Your task to perform on an android device: Clear the cart on ebay.com. Add acer nitro to the cart on ebay.com, then select checkout. Image 0: 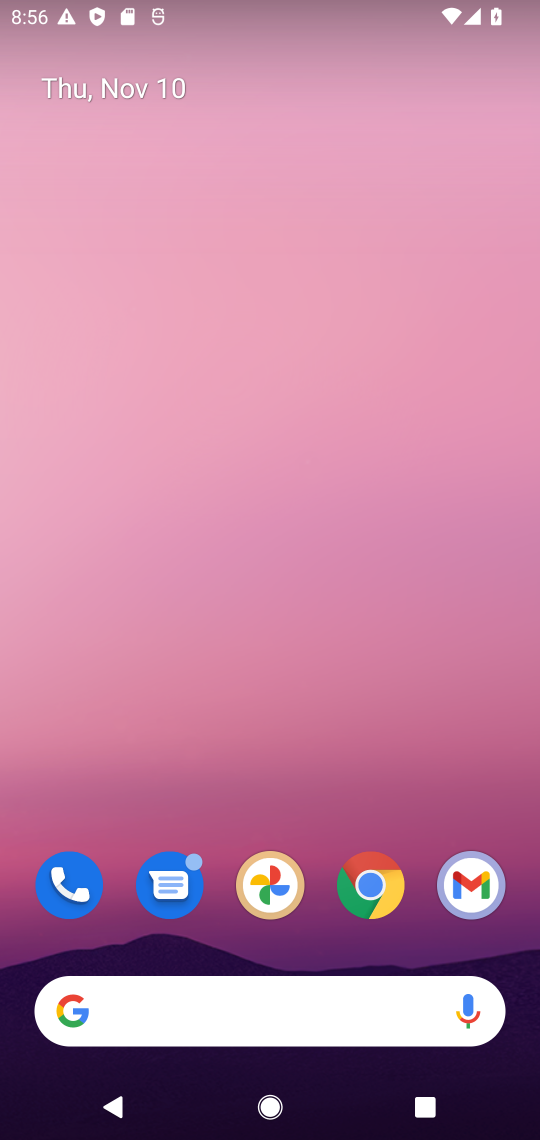
Step 0: click (368, 880)
Your task to perform on an android device: Clear the cart on ebay.com. Add acer nitro to the cart on ebay.com, then select checkout. Image 1: 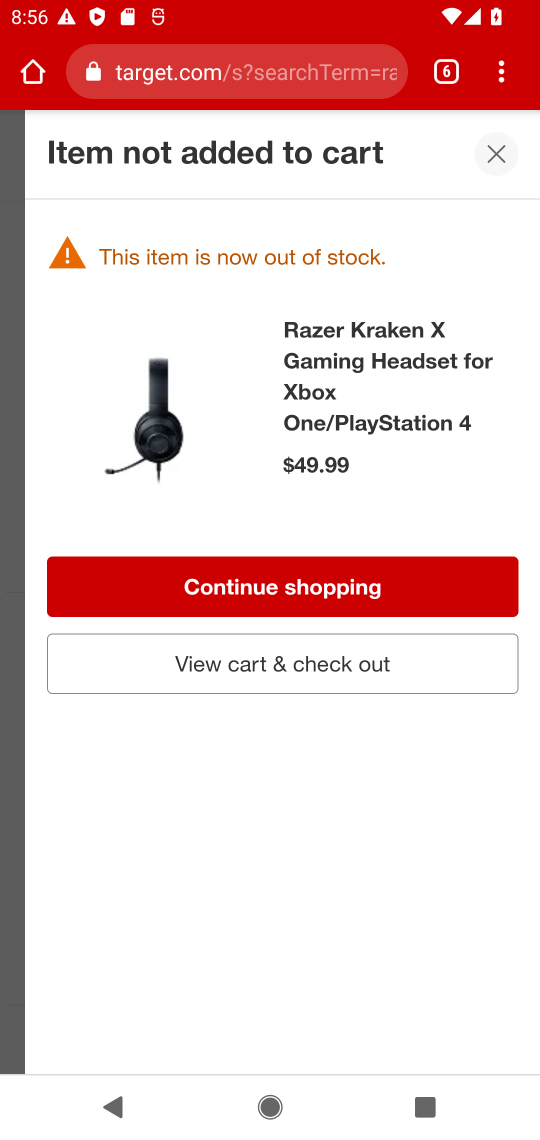
Step 1: click (448, 76)
Your task to perform on an android device: Clear the cart on ebay.com. Add acer nitro to the cart on ebay.com, then select checkout. Image 2: 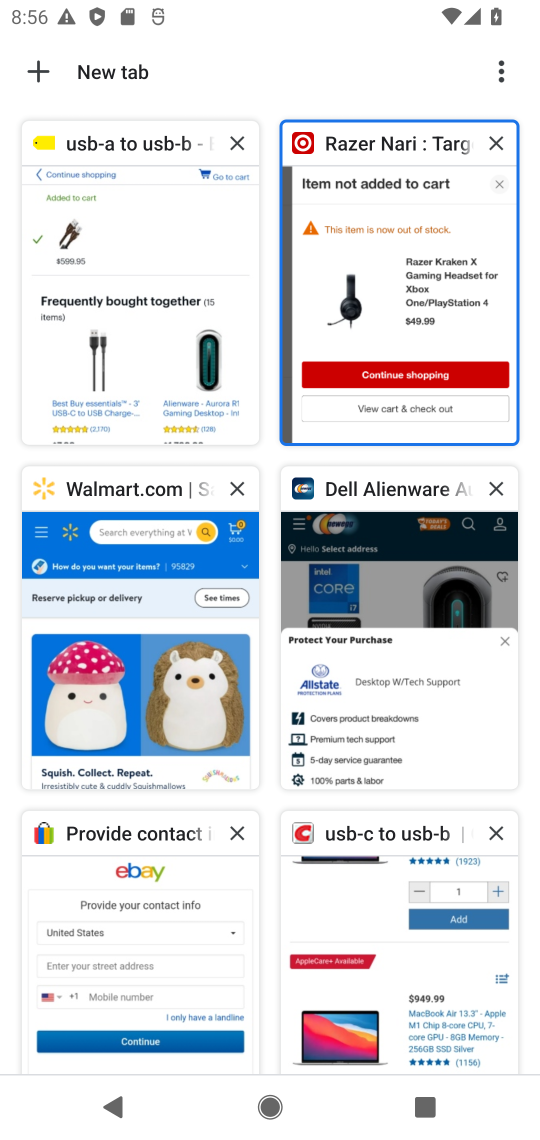
Step 2: click (144, 903)
Your task to perform on an android device: Clear the cart on ebay.com. Add acer nitro to the cart on ebay.com, then select checkout. Image 3: 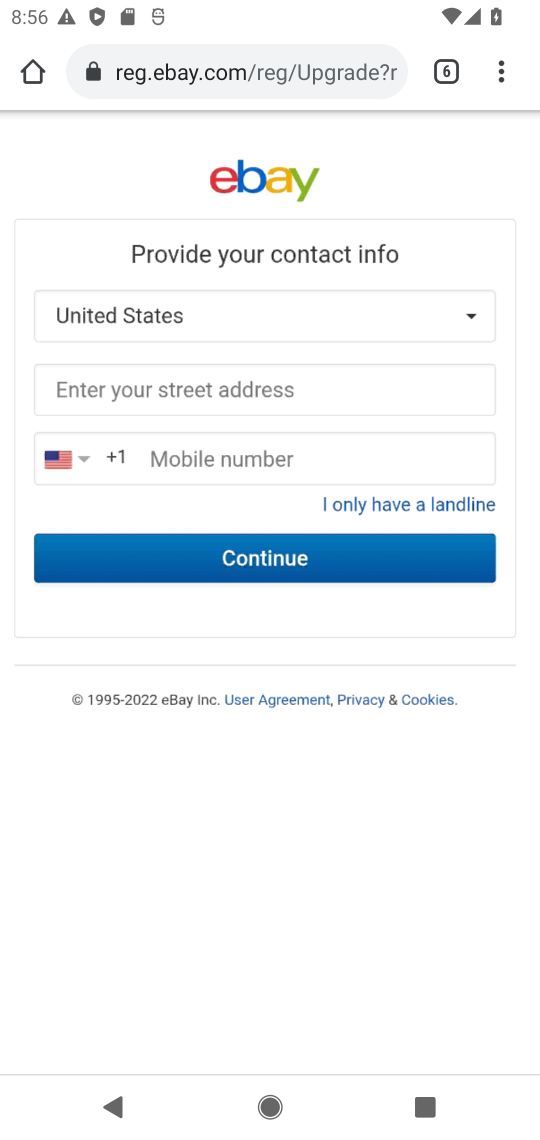
Step 3: press back button
Your task to perform on an android device: Clear the cart on ebay.com. Add acer nitro to the cart on ebay.com, then select checkout. Image 4: 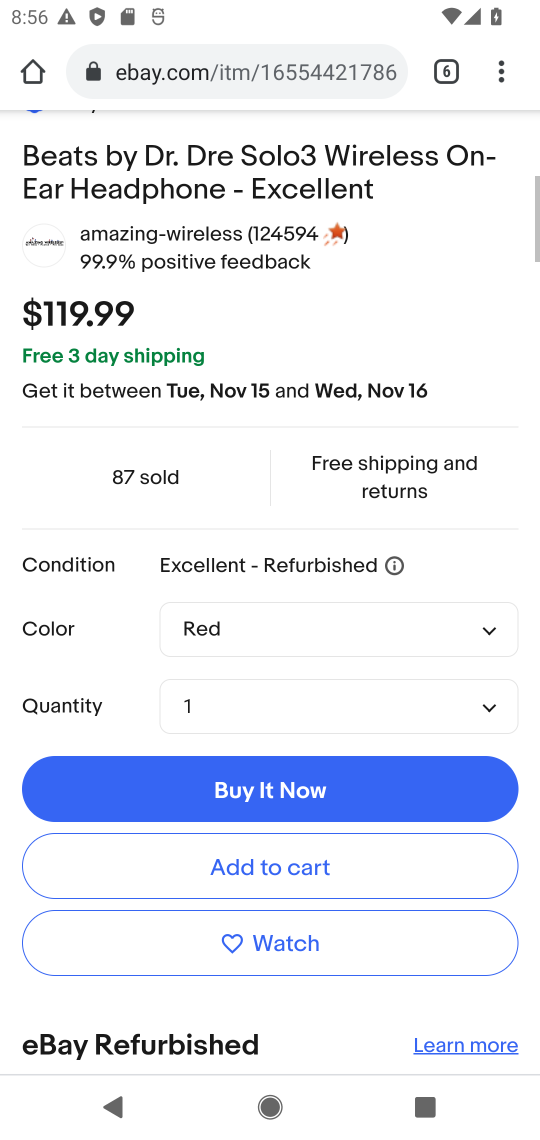
Step 4: drag from (357, 190) to (367, 365)
Your task to perform on an android device: Clear the cart on ebay.com. Add acer nitro to the cart on ebay.com, then select checkout. Image 5: 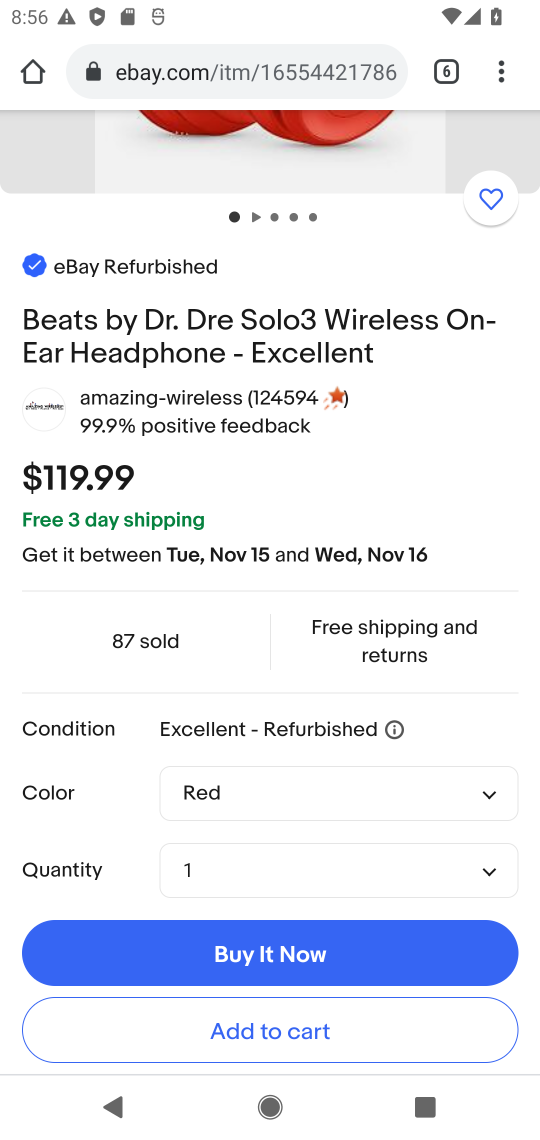
Step 5: drag from (324, 376) to (265, 959)
Your task to perform on an android device: Clear the cart on ebay.com. Add acer nitro to the cart on ebay.com, then select checkout. Image 6: 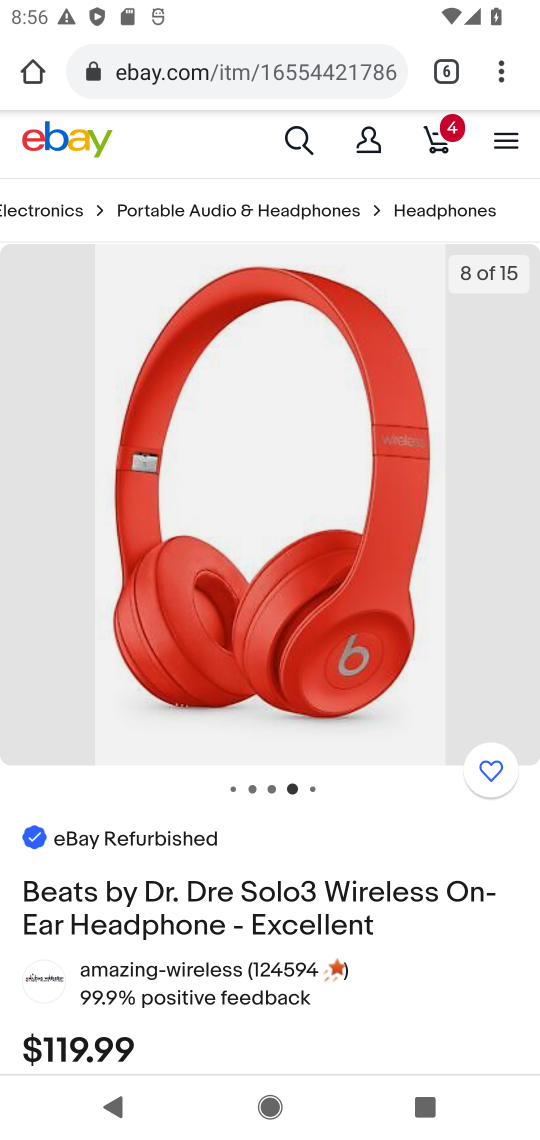
Step 6: click (295, 145)
Your task to perform on an android device: Clear the cart on ebay.com. Add acer nitro to the cart on ebay.com, then select checkout. Image 7: 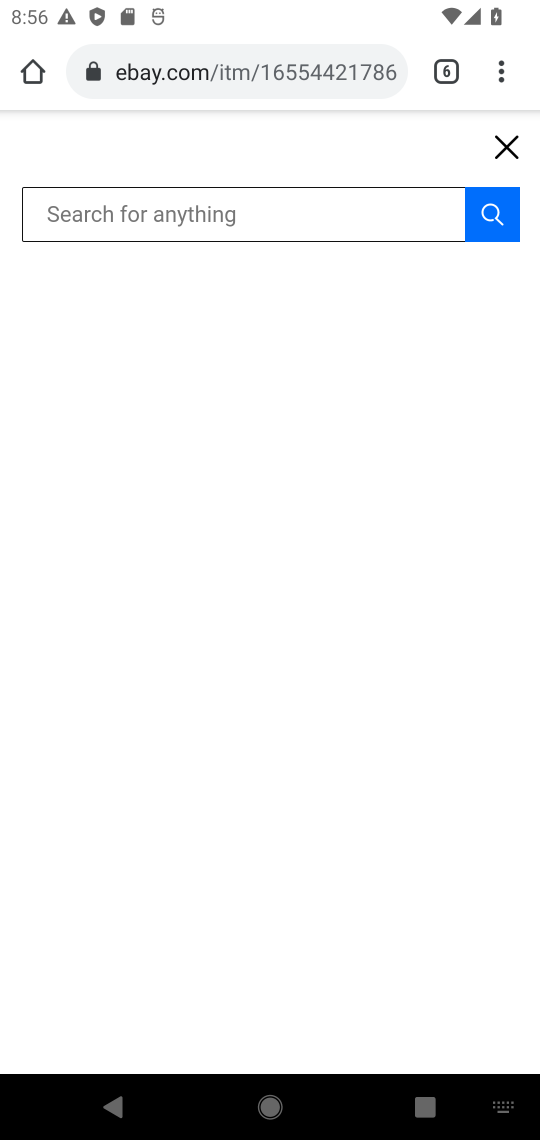
Step 7: type "acer nitro"
Your task to perform on an android device: Clear the cart on ebay.com. Add acer nitro to the cart on ebay.com, then select checkout. Image 8: 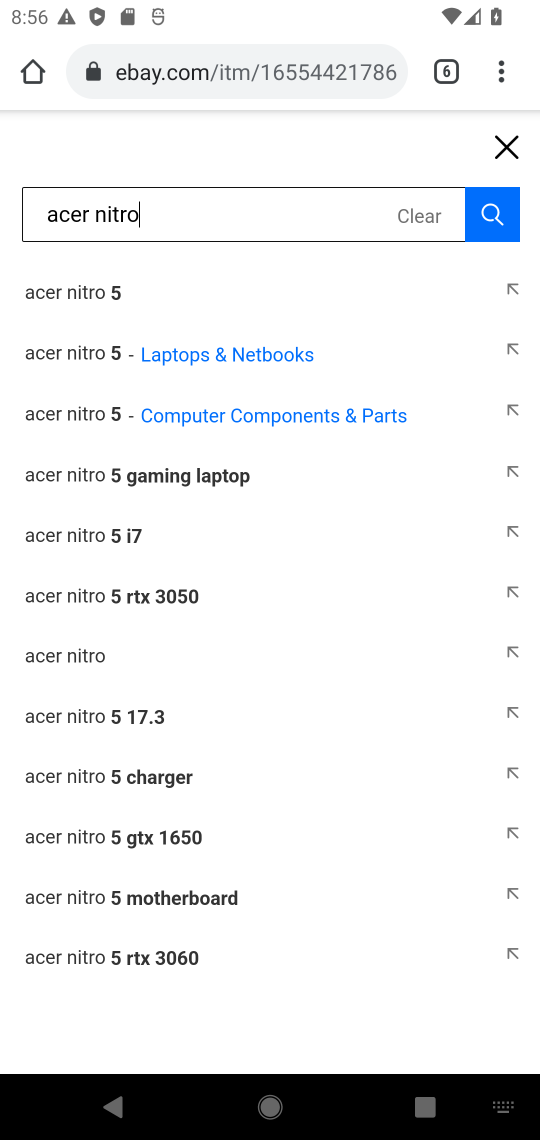
Step 8: click (92, 350)
Your task to perform on an android device: Clear the cart on ebay.com. Add acer nitro to the cart on ebay.com, then select checkout. Image 9: 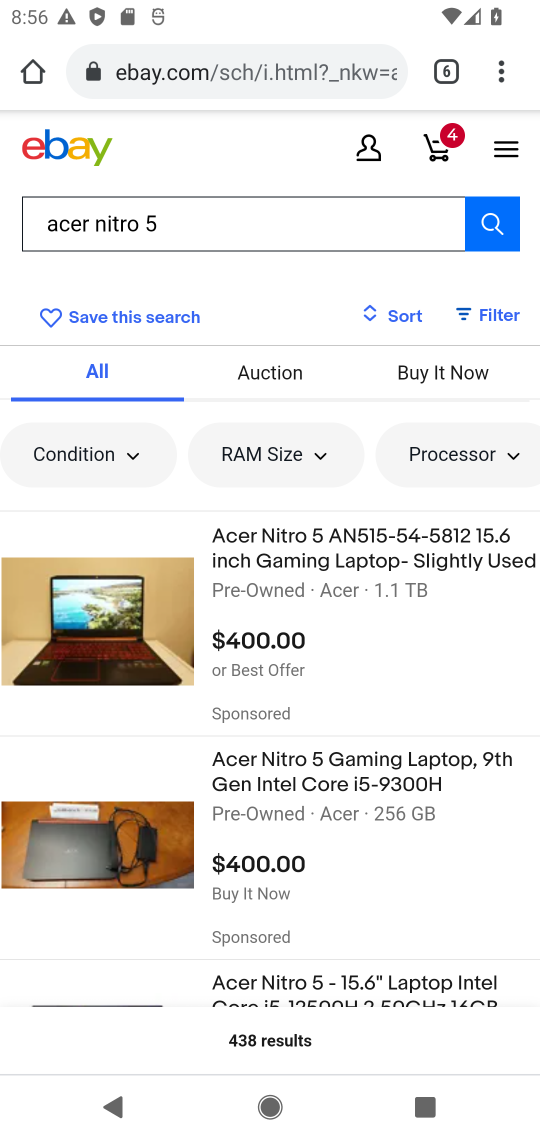
Step 9: click (322, 562)
Your task to perform on an android device: Clear the cart on ebay.com. Add acer nitro to the cart on ebay.com, then select checkout. Image 10: 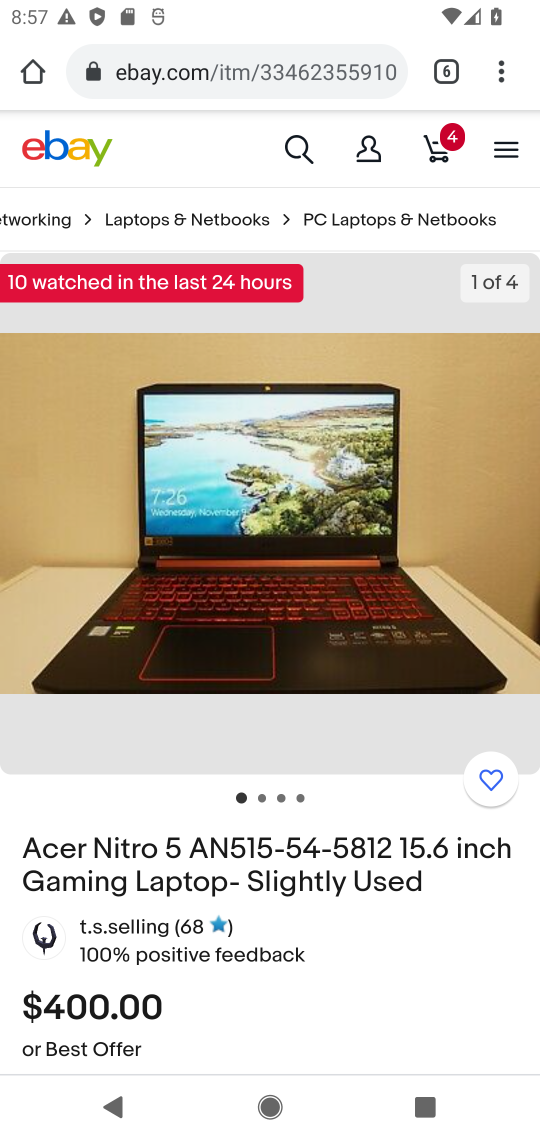
Step 10: drag from (376, 936) to (448, 688)
Your task to perform on an android device: Clear the cart on ebay.com. Add acer nitro to the cart on ebay.com, then select checkout. Image 11: 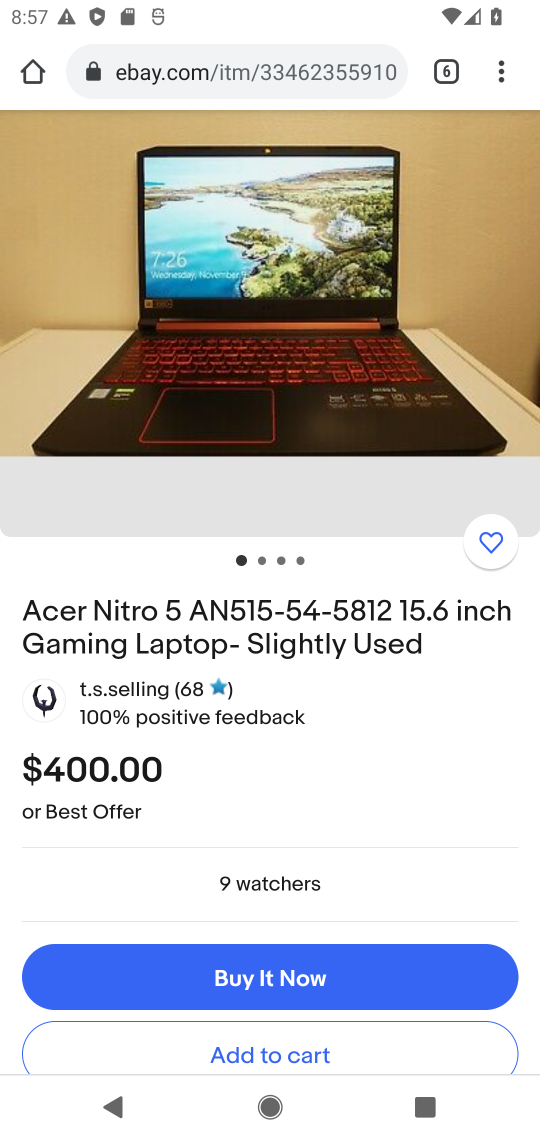
Step 11: click (319, 1051)
Your task to perform on an android device: Clear the cart on ebay.com. Add acer nitro to the cart on ebay.com, then select checkout. Image 12: 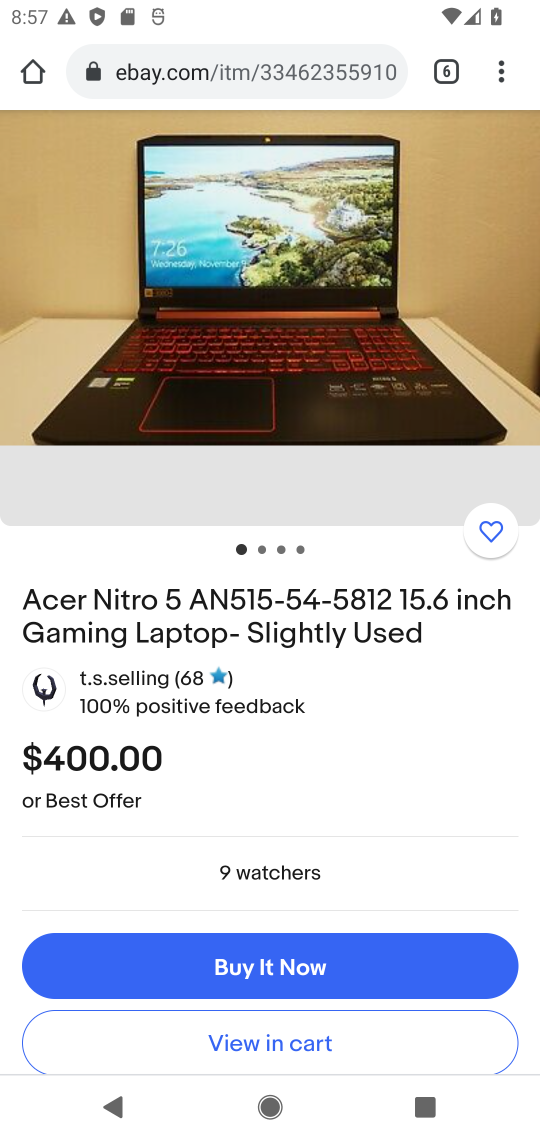
Step 12: drag from (443, 666) to (392, 1000)
Your task to perform on an android device: Clear the cart on ebay.com. Add acer nitro to the cart on ebay.com, then select checkout. Image 13: 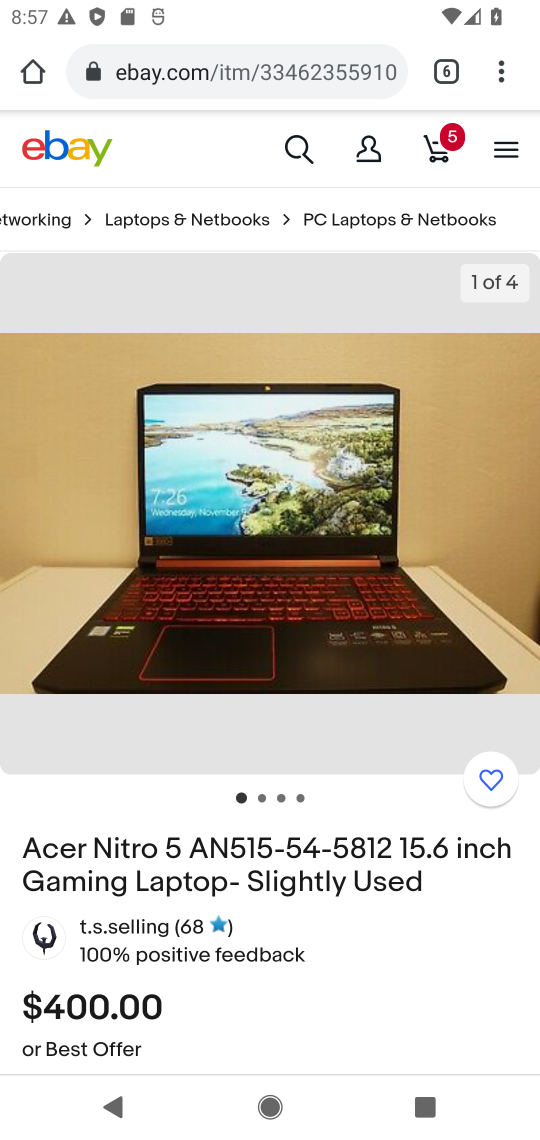
Step 13: click (431, 128)
Your task to perform on an android device: Clear the cart on ebay.com. Add acer nitro to the cart on ebay.com, then select checkout. Image 14: 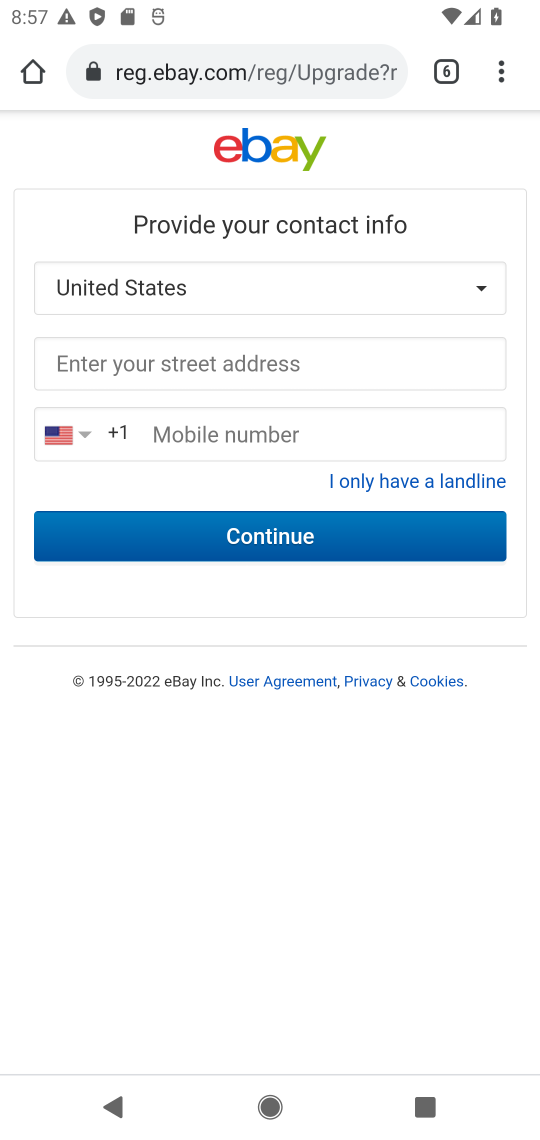
Step 14: task complete